Your task to perform on an android device: Go to wifi settings Image 0: 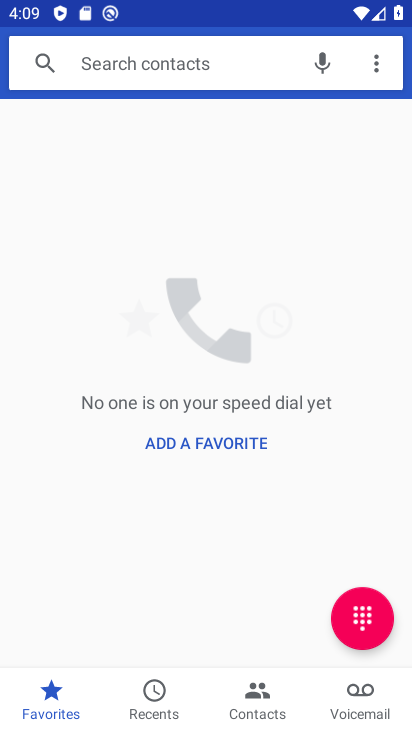
Step 0: drag from (210, 1) to (289, 656)
Your task to perform on an android device: Go to wifi settings Image 1: 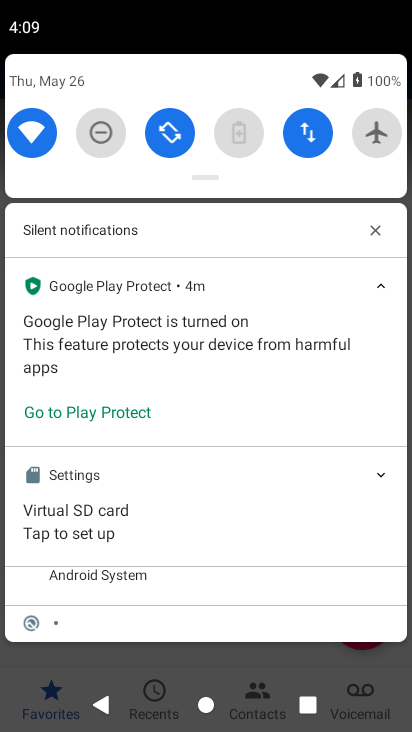
Step 1: click (36, 143)
Your task to perform on an android device: Go to wifi settings Image 2: 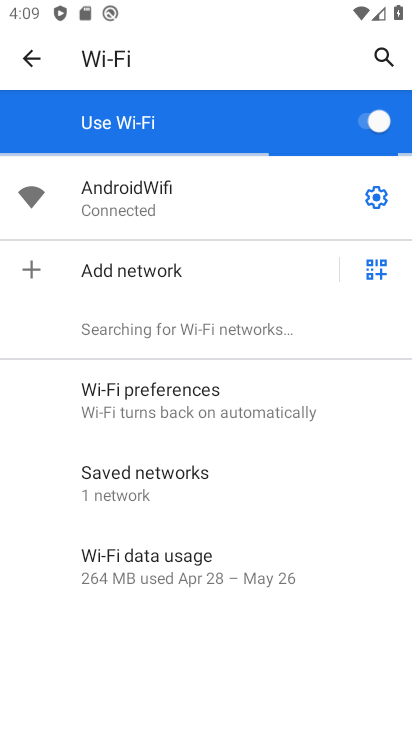
Step 2: task complete